Your task to perform on an android device: Go to calendar. Show me events next week Image 0: 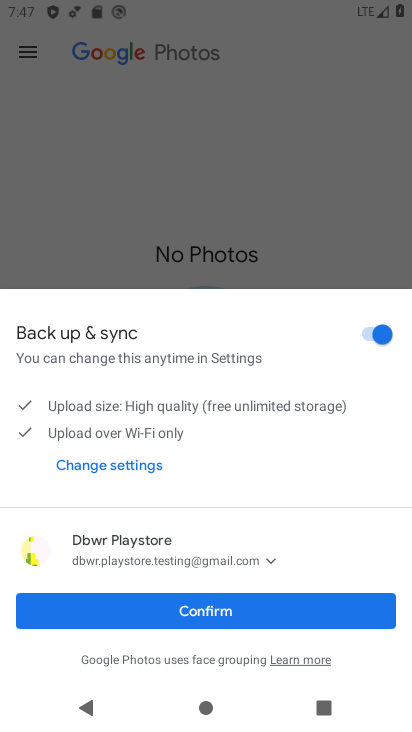
Step 0: press home button
Your task to perform on an android device: Go to calendar. Show me events next week Image 1: 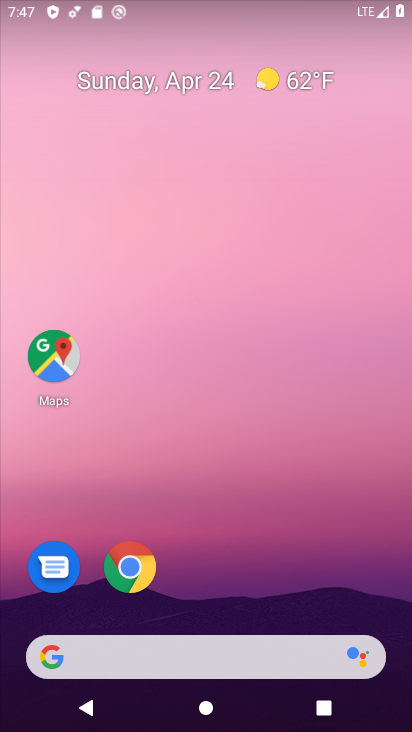
Step 1: drag from (208, 567) to (209, 114)
Your task to perform on an android device: Go to calendar. Show me events next week Image 2: 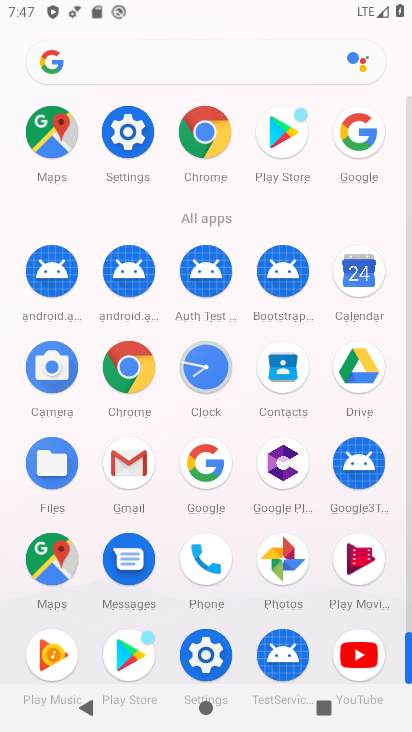
Step 2: click (359, 275)
Your task to perform on an android device: Go to calendar. Show me events next week Image 3: 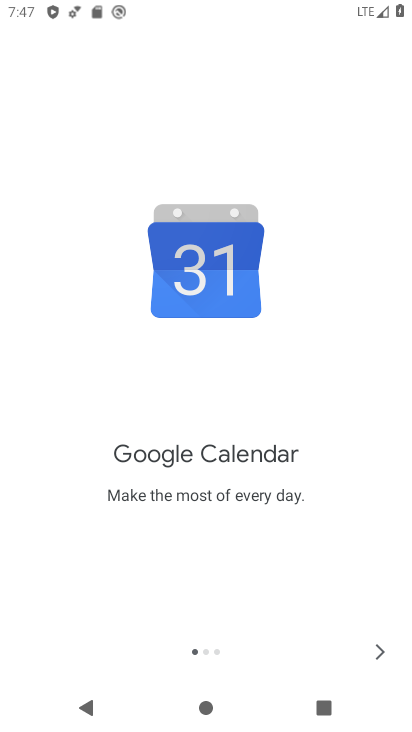
Step 3: click (380, 654)
Your task to perform on an android device: Go to calendar. Show me events next week Image 4: 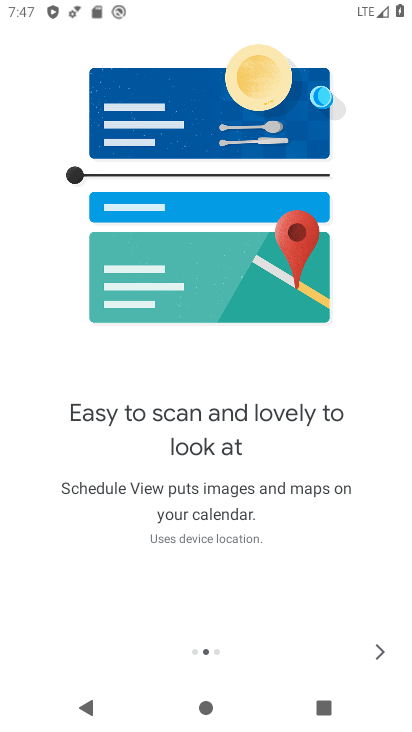
Step 4: click (380, 654)
Your task to perform on an android device: Go to calendar. Show me events next week Image 5: 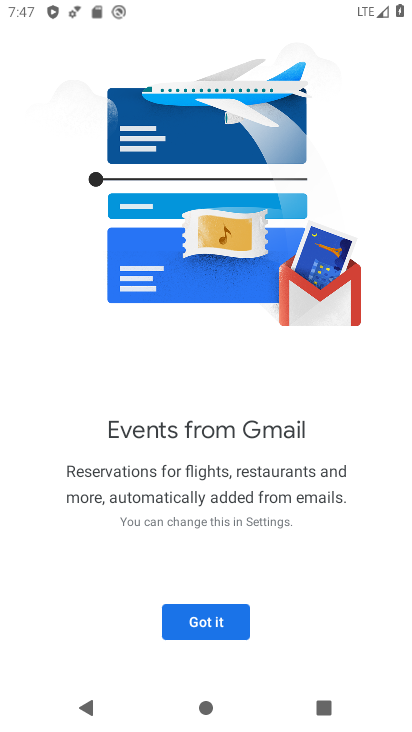
Step 5: click (205, 623)
Your task to perform on an android device: Go to calendar. Show me events next week Image 6: 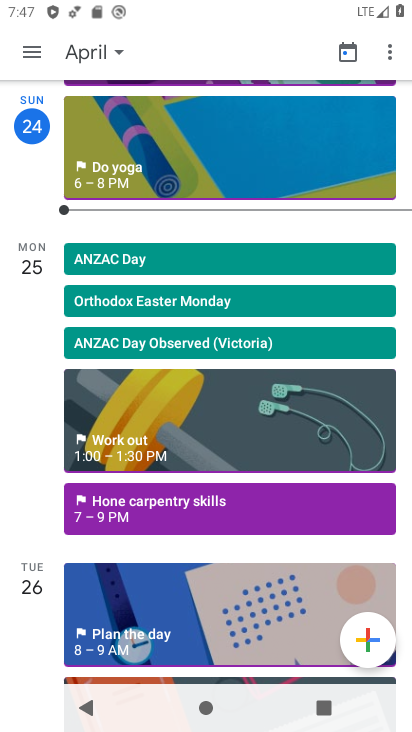
Step 6: click (115, 51)
Your task to perform on an android device: Go to calendar. Show me events next week Image 7: 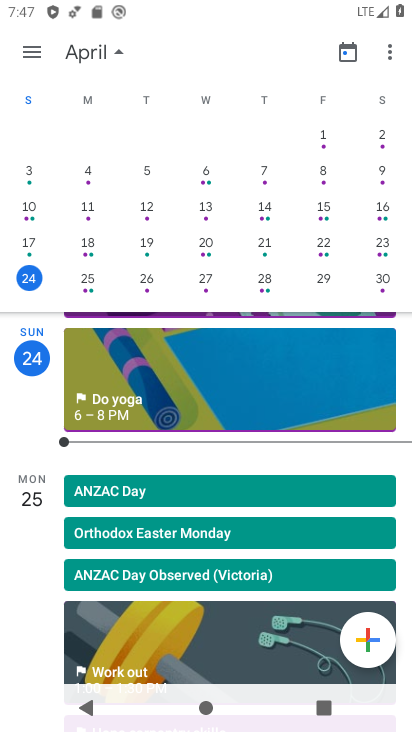
Step 7: click (138, 283)
Your task to perform on an android device: Go to calendar. Show me events next week Image 8: 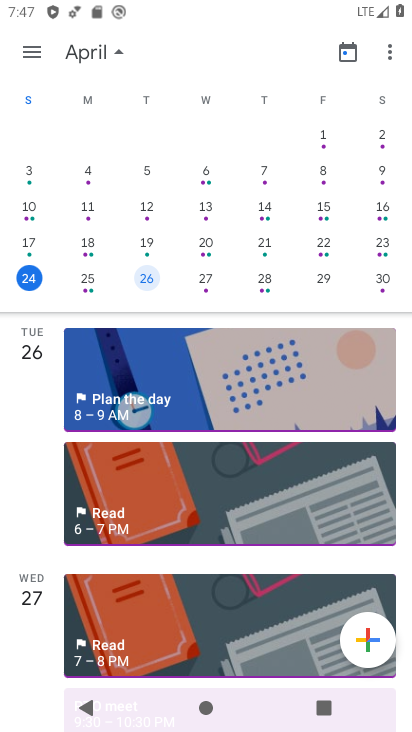
Step 8: click (25, 54)
Your task to perform on an android device: Go to calendar. Show me events next week Image 9: 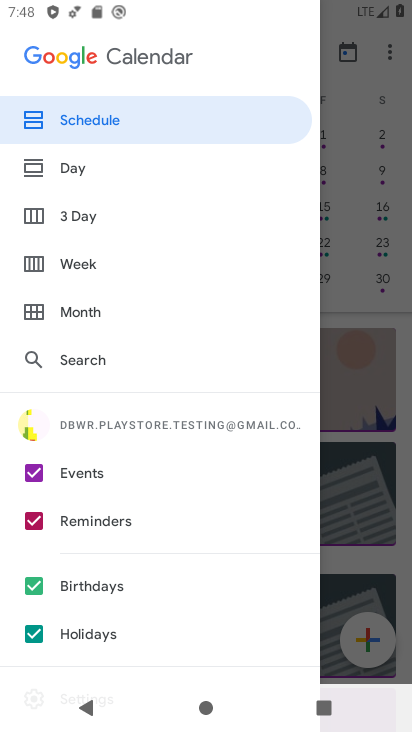
Step 9: click (80, 262)
Your task to perform on an android device: Go to calendar. Show me events next week Image 10: 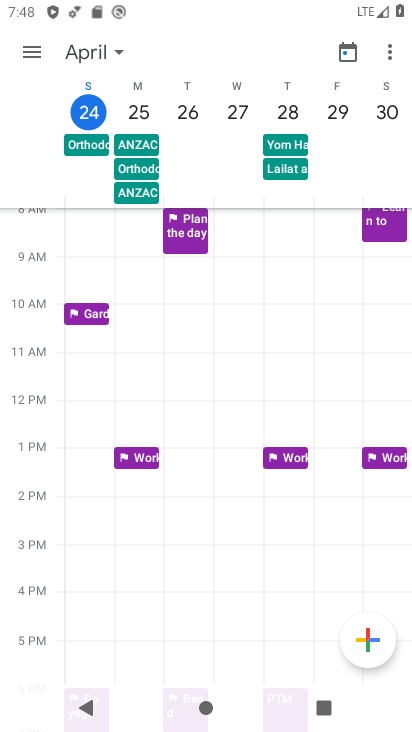
Step 10: task complete